Your task to perform on an android device: turn on wifi Image 0: 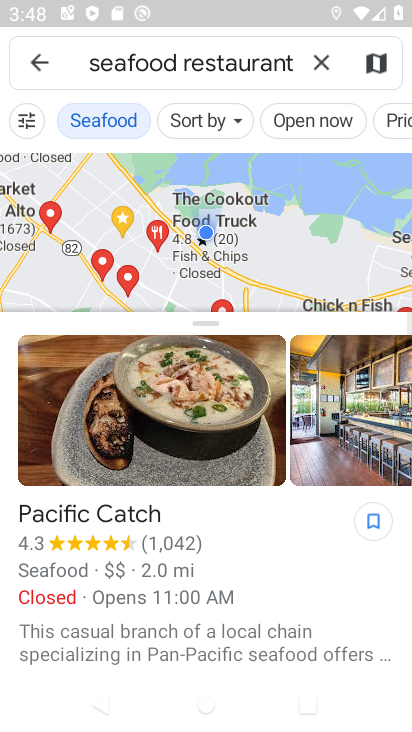
Step 0: press home button
Your task to perform on an android device: turn on wifi Image 1: 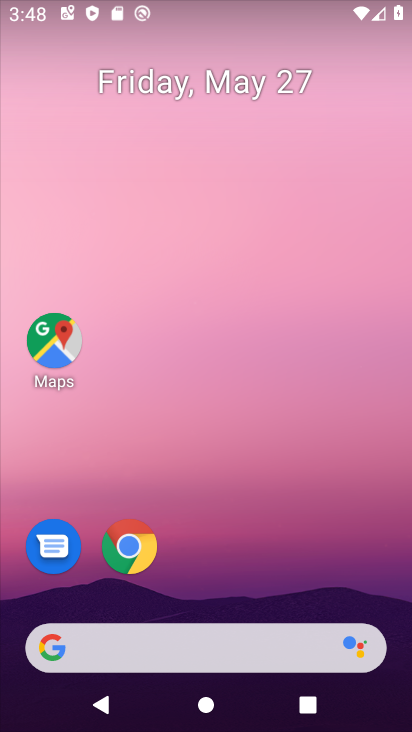
Step 1: drag from (234, 589) to (239, 76)
Your task to perform on an android device: turn on wifi Image 2: 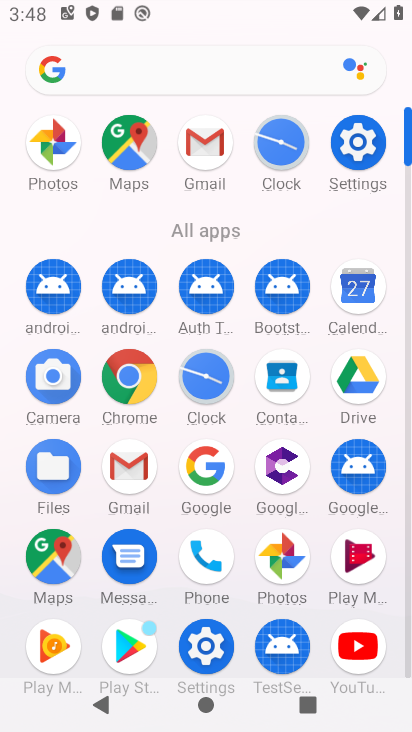
Step 2: click (358, 133)
Your task to perform on an android device: turn on wifi Image 3: 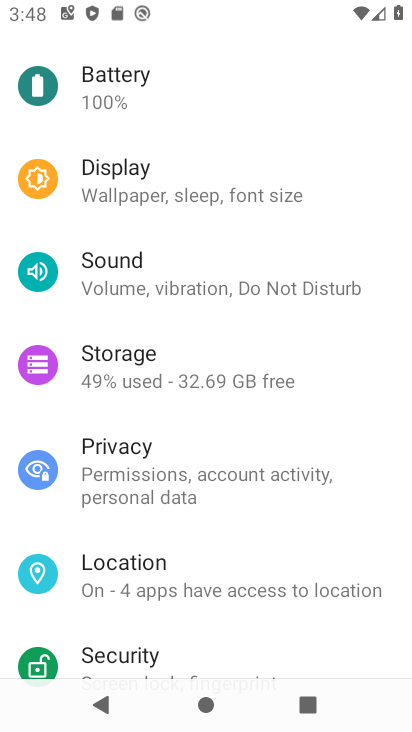
Step 3: drag from (171, 95) to (206, 623)
Your task to perform on an android device: turn on wifi Image 4: 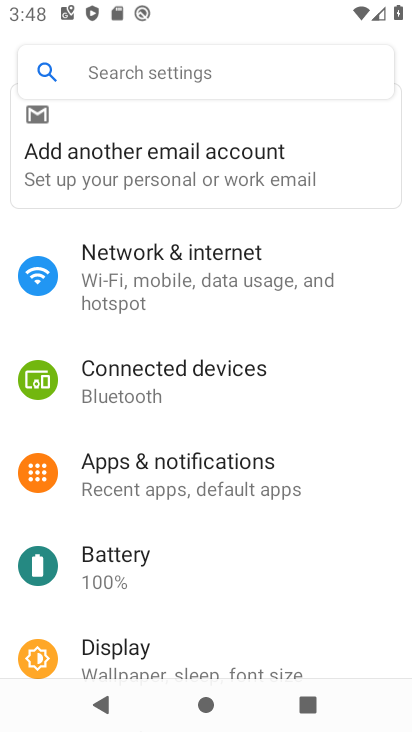
Step 4: click (185, 273)
Your task to perform on an android device: turn on wifi Image 5: 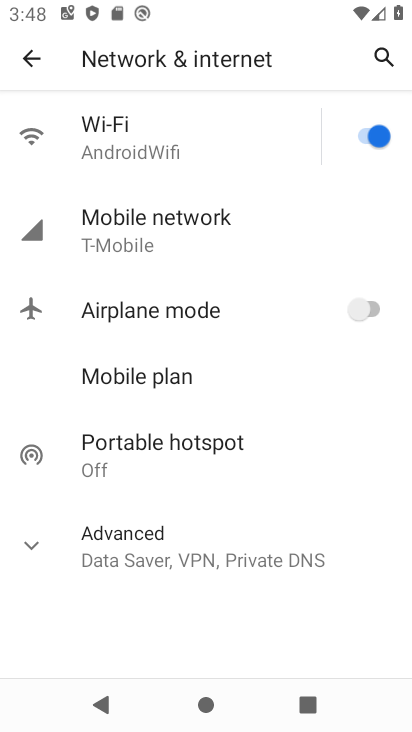
Step 5: task complete